Your task to perform on an android device: turn smart compose on in the gmail app Image 0: 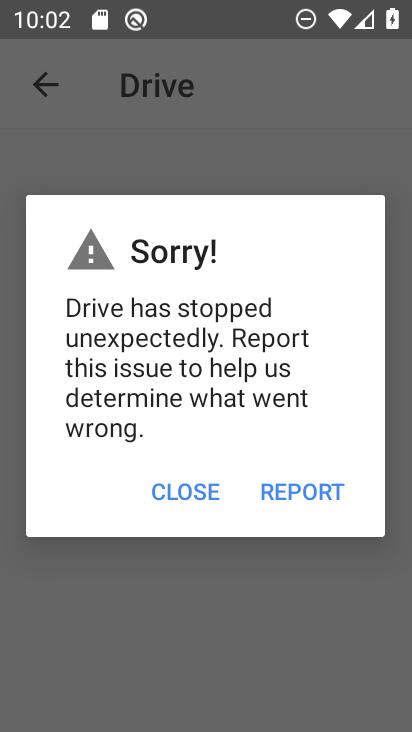
Step 0: press home button
Your task to perform on an android device: turn smart compose on in the gmail app Image 1: 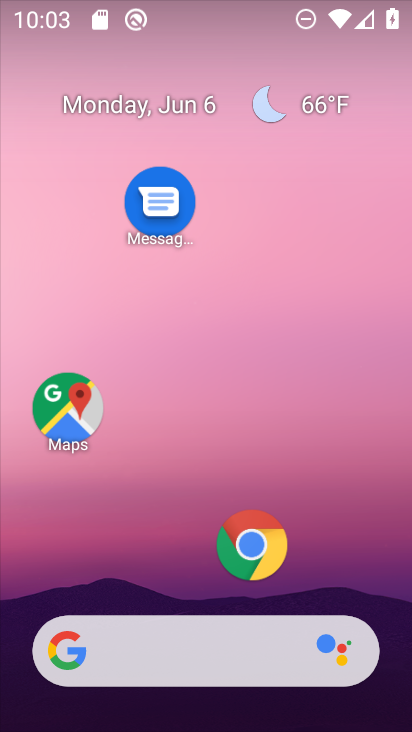
Step 1: drag from (220, 583) to (240, 246)
Your task to perform on an android device: turn smart compose on in the gmail app Image 2: 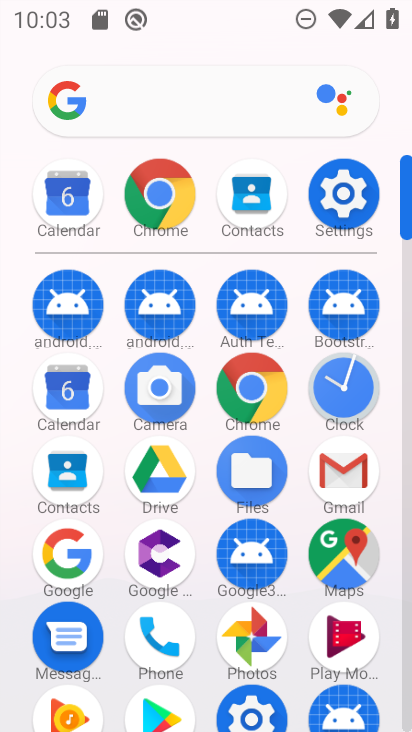
Step 2: click (339, 481)
Your task to perform on an android device: turn smart compose on in the gmail app Image 3: 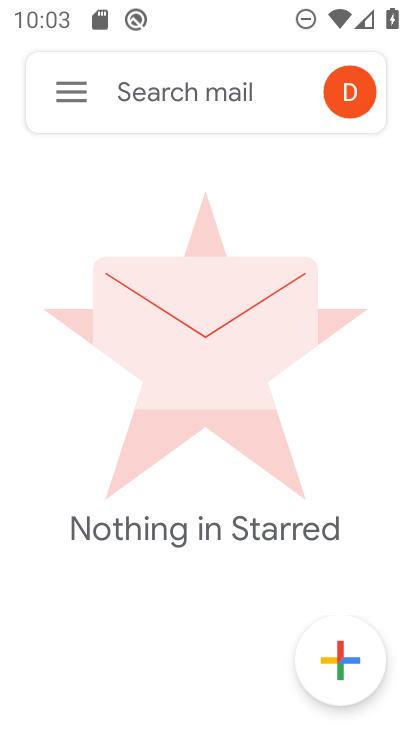
Step 3: click (68, 95)
Your task to perform on an android device: turn smart compose on in the gmail app Image 4: 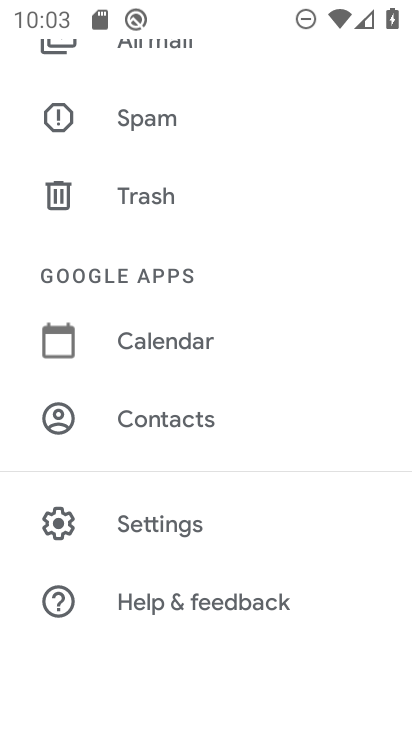
Step 4: click (127, 525)
Your task to perform on an android device: turn smart compose on in the gmail app Image 5: 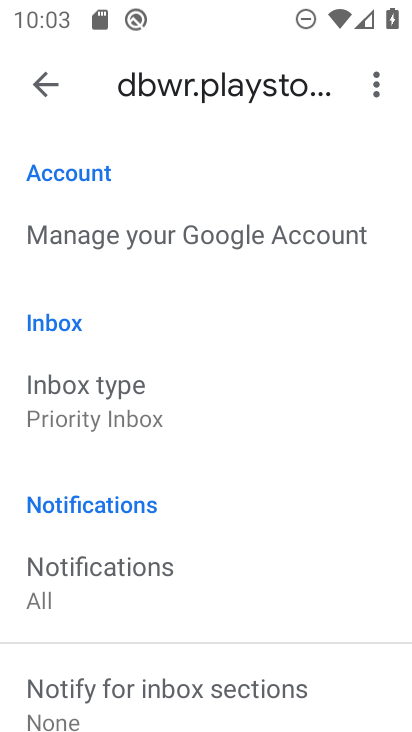
Step 5: task complete